Your task to perform on an android device: change text size in settings app Image 0: 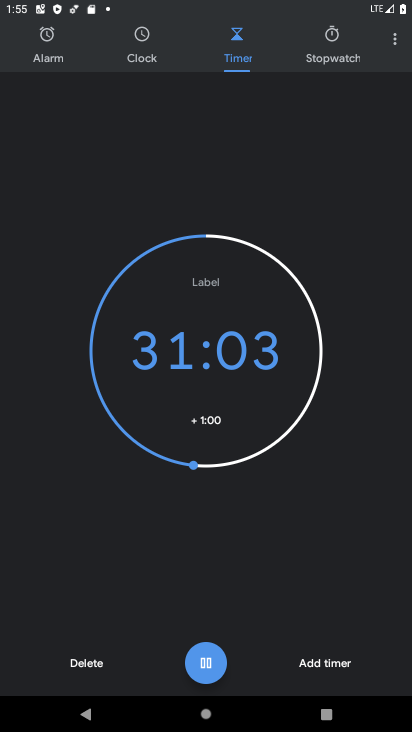
Step 0: press home button
Your task to perform on an android device: change text size in settings app Image 1: 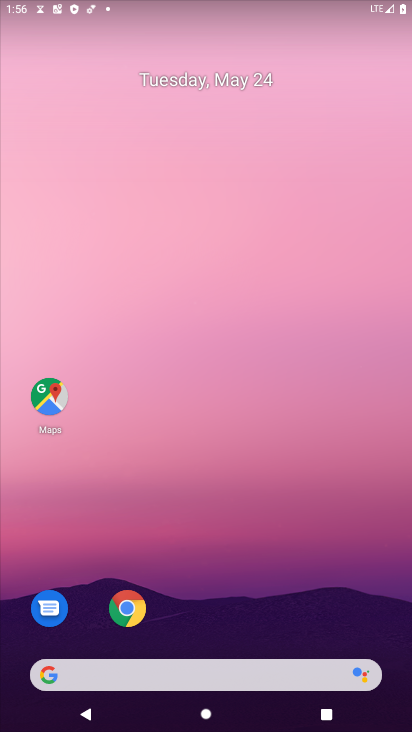
Step 1: drag from (229, 631) to (196, 118)
Your task to perform on an android device: change text size in settings app Image 2: 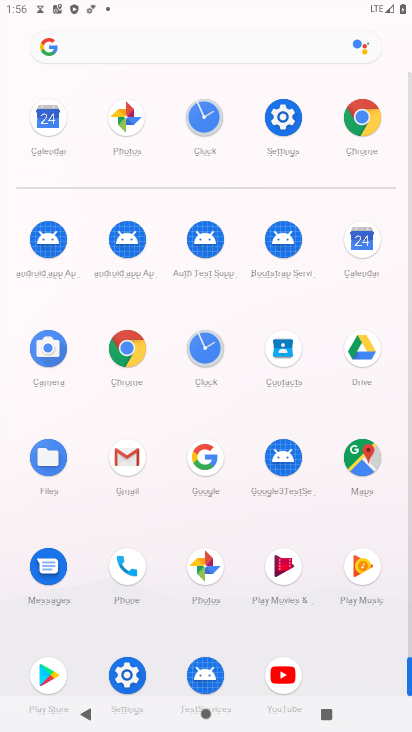
Step 2: click (295, 125)
Your task to perform on an android device: change text size in settings app Image 3: 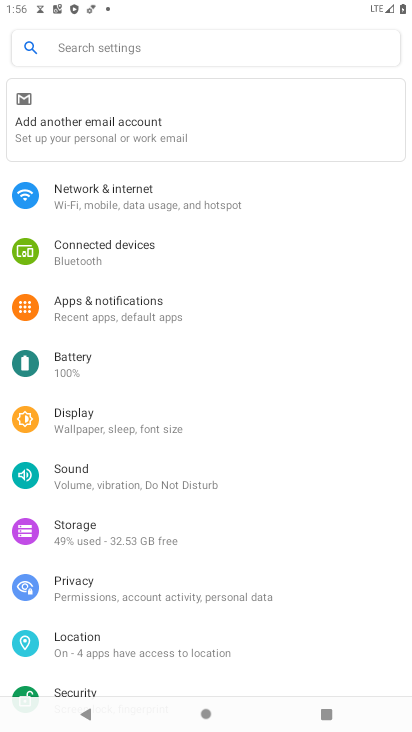
Step 3: click (163, 411)
Your task to perform on an android device: change text size in settings app Image 4: 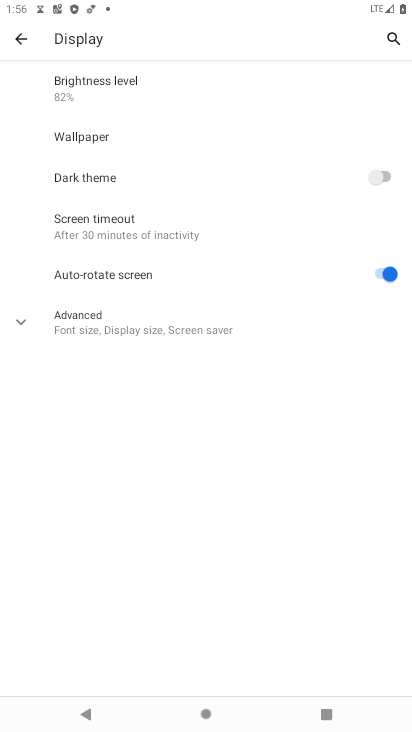
Step 4: click (238, 320)
Your task to perform on an android device: change text size in settings app Image 5: 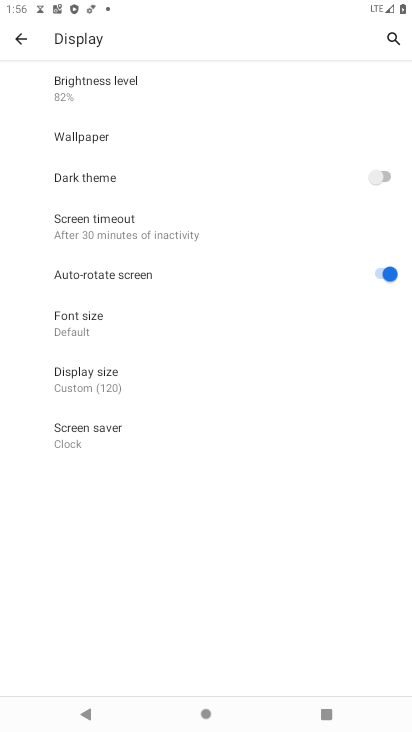
Step 5: click (195, 329)
Your task to perform on an android device: change text size in settings app Image 6: 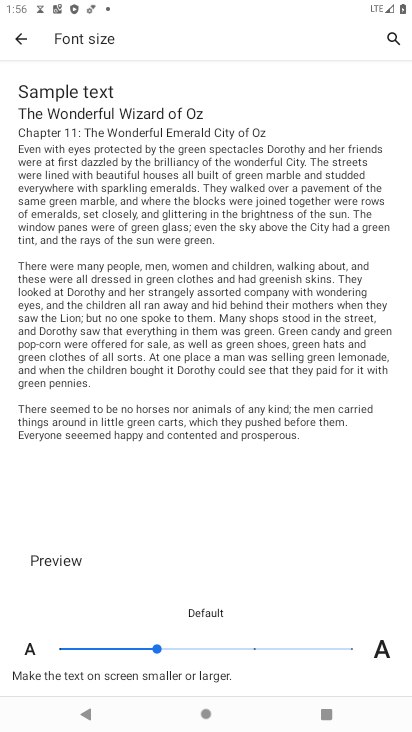
Step 6: click (250, 647)
Your task to perform on an android device: change text size in settings app Image 7: 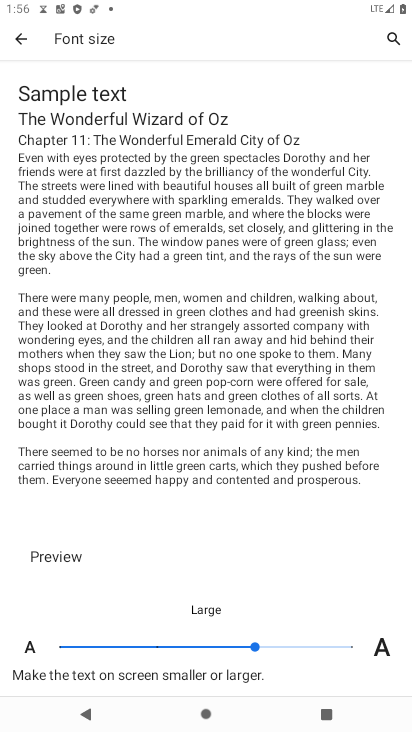
Step 7: task complete